Your task to perform on an android device: set default search engine in the chrome app Image 0: 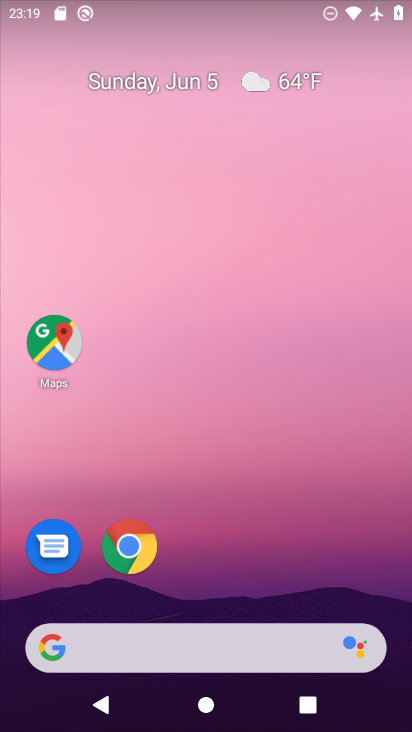
Step 0: drag from (237, 581) to (343, 89)
Your task to perform on an android device: set default search engine in the chrome app Image 1: 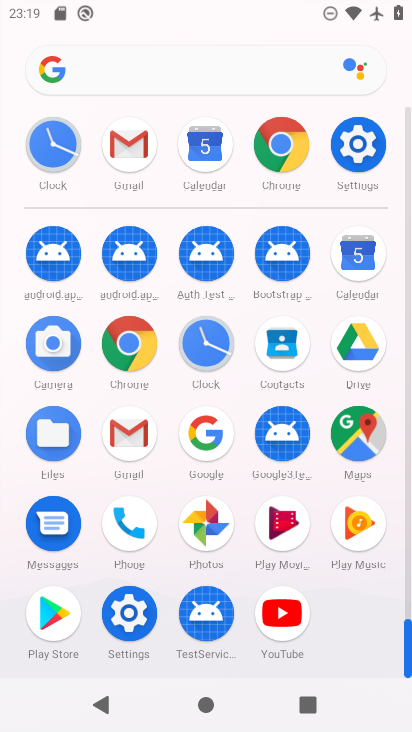
Step 1: click (133, 347)
Your task to perform on an android device: set default search engine in the chrome app Image 2: 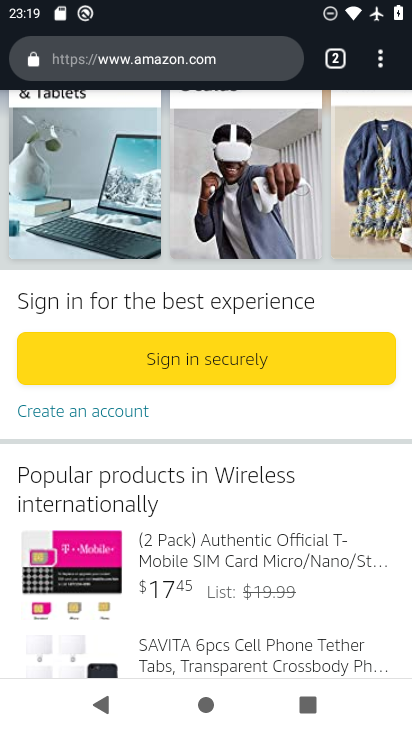
Step 2: drag from (285, 538) to (329, 229)
Your task to perform on an android device: set default search engine in the chrome app Image 3: 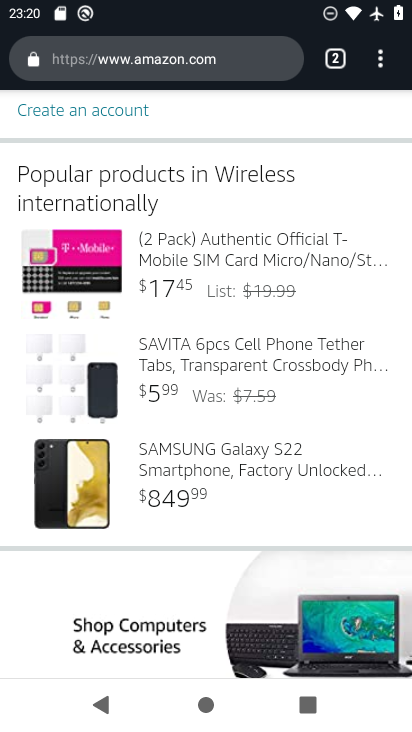
Step 3: drag from (270, 517) to (285, 198)
Your task to perform on an android device: set default search engine in the chrome app Image 4: 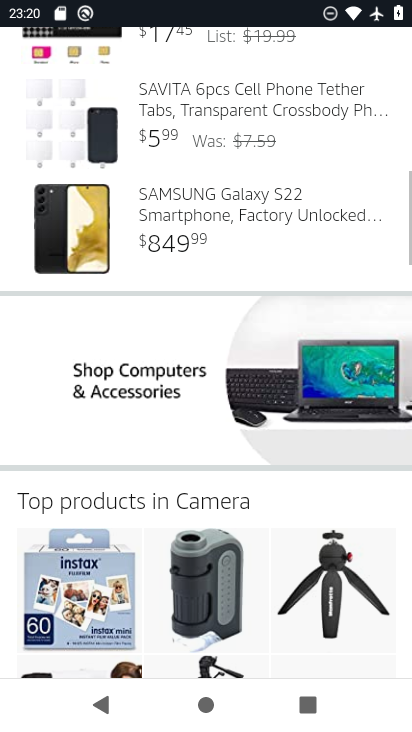
Step 4: drag from (307, 110) to (300, 615)
Your task to perform on an android device: set default search engine in the chrome app Image 5: 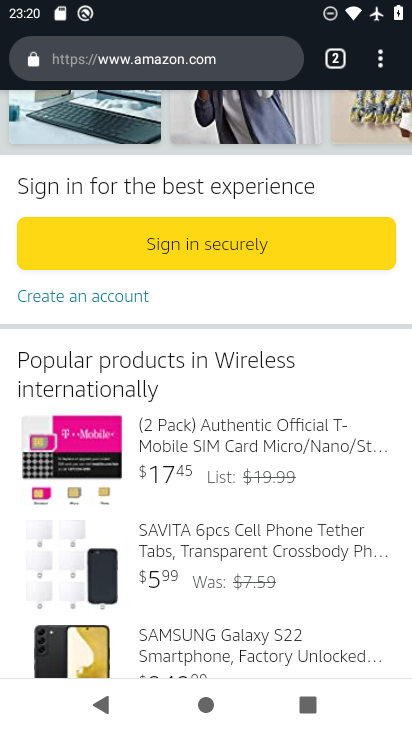
Step 5: drag from (337, 166) to (332, 425)
Your task to perform on an android device: set default search engine in the chrome app Image 6: 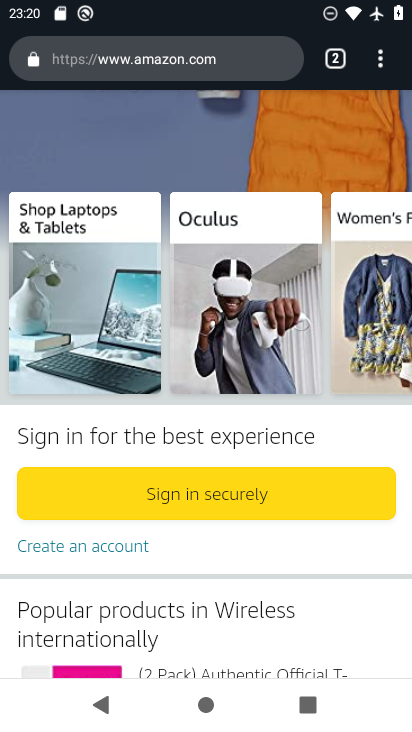
Step 6: click (376, 49)
Your task to perform on an android device: set default search engine in the chrome app Image 7: 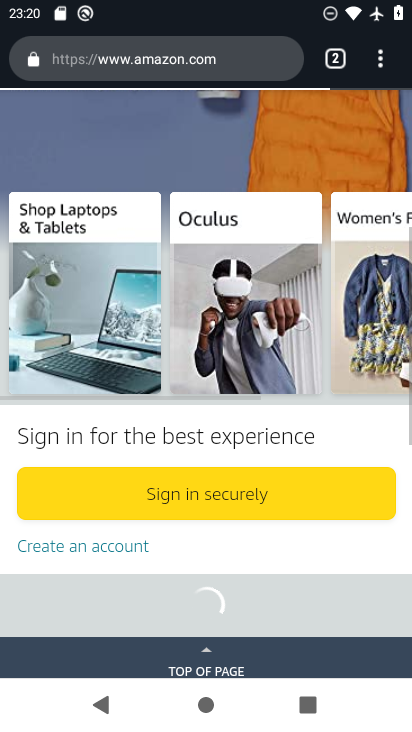
Step 7: drag from (381, 61) to (206, 573)
Your task to perform on an android device: set default search engine in the chrome app Image 8: 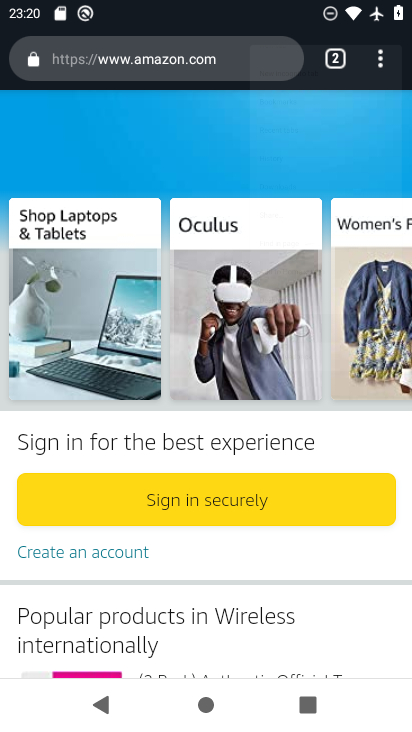
Step 8: drag from (206, 571) to (274, 102)
Your task to perform on an android device: set default search engine in the chrome app Image 9: 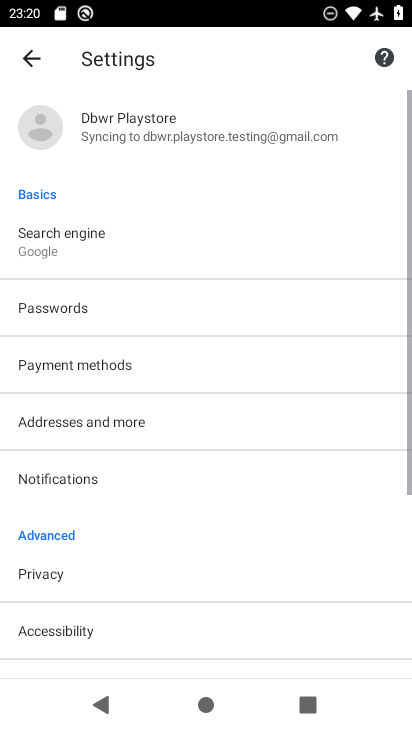
Step 9: drag from (158, 506) to (236, 167)
Your task to perform on an android device: set default search engine in the chrome app Image 10: 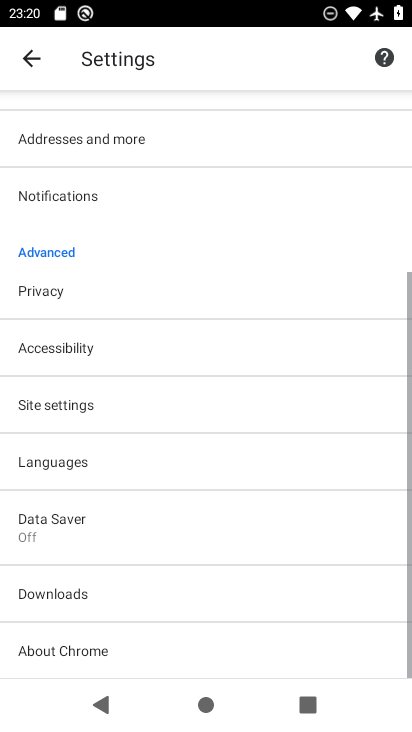
Step 10: drag from (189, 225) to (245, 705)
Your task to perform on an android device: set default search engine in the chrome app Image 11: 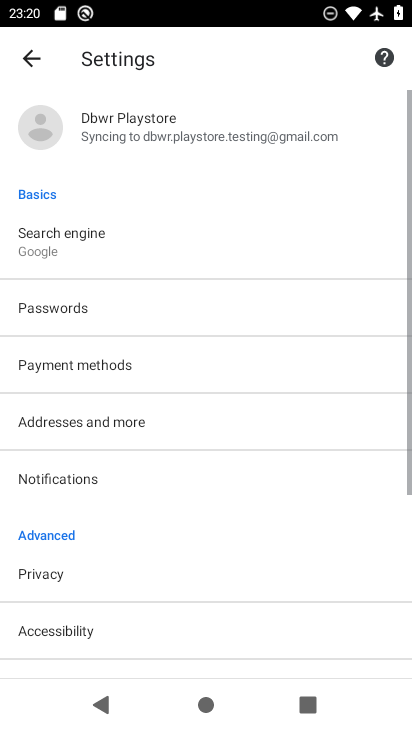
Step 11: click (88, 240)
Your task to perform on an android device: set default search engine in the chrome app Image 12: 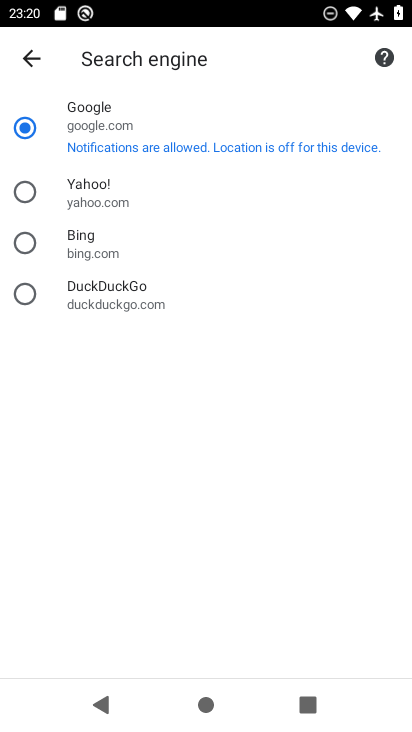
Step 12: task complete